Your task to perform on an android device: Is it going to rain today? Image 0: 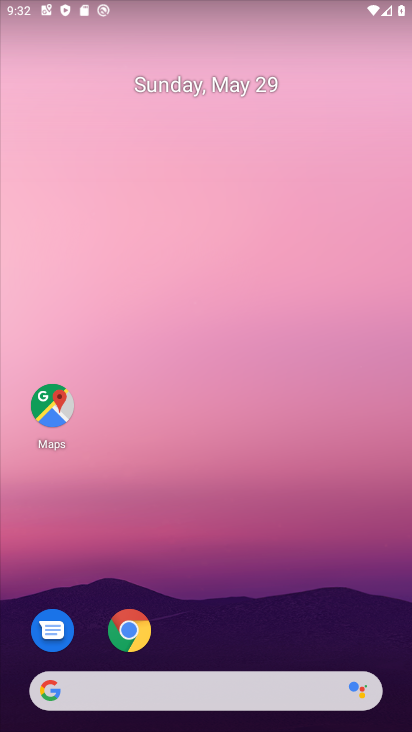
Step 0: drag from (25, 189) to (391, 225)
Your task to perform on an android device: Is it going to rain today? Image 1: 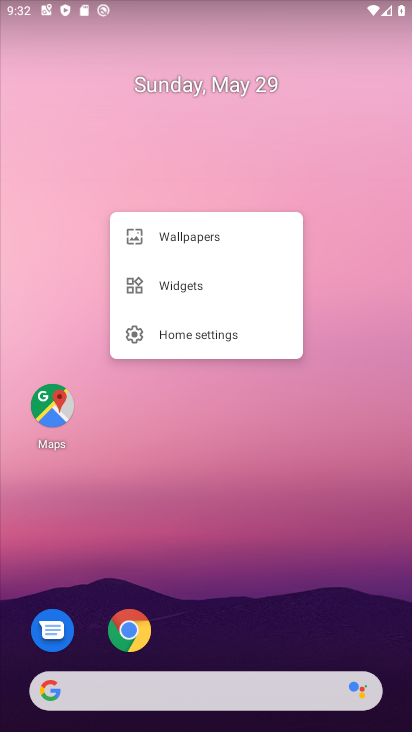
Step 1: drag from (20, 184) to (378, 212)
Your task to perform on an android device: Is it going to rain today? Image 2: 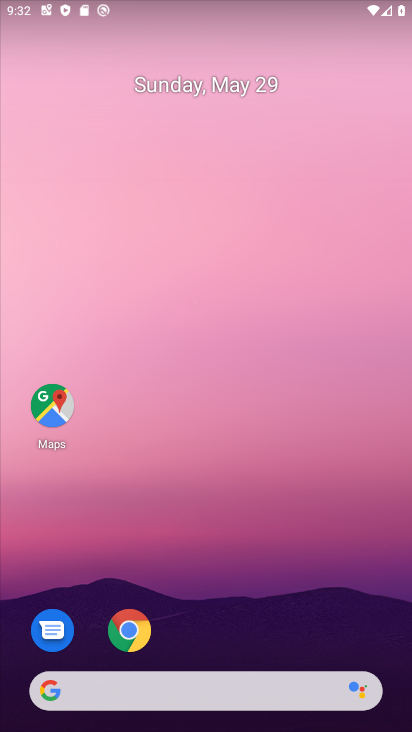
Step 2: drag from (7, 230) to (404, 272)
Your task to perform on an android device: Is it going to rain today? Image 3: 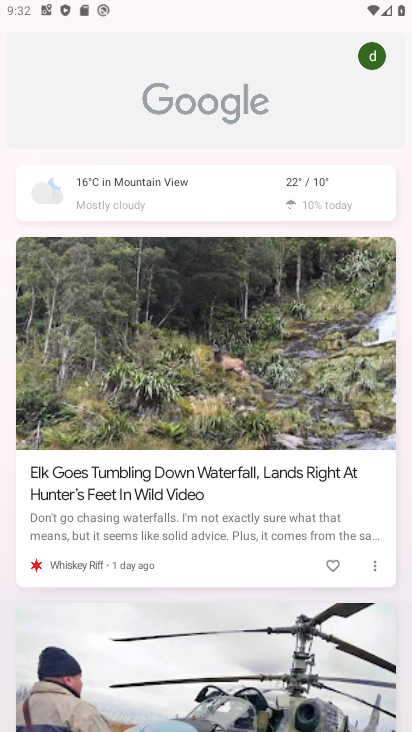
Step 3: click (283, 181)
Your task to perform on an android device: Is it going to rain today? Image 4: 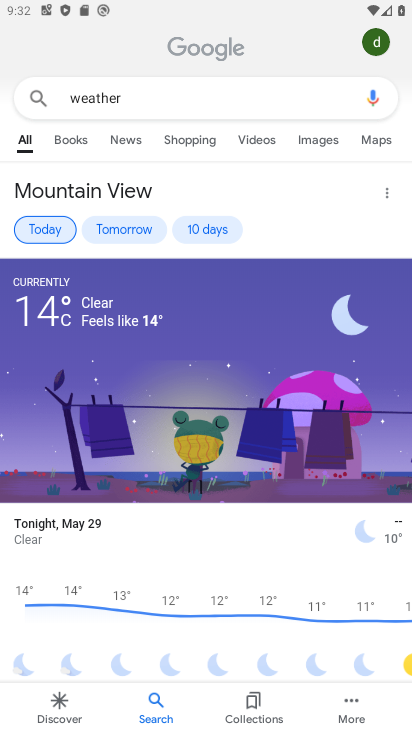
Step 4: task complete